Your task to perform on an android device: Check the weather Image 0: 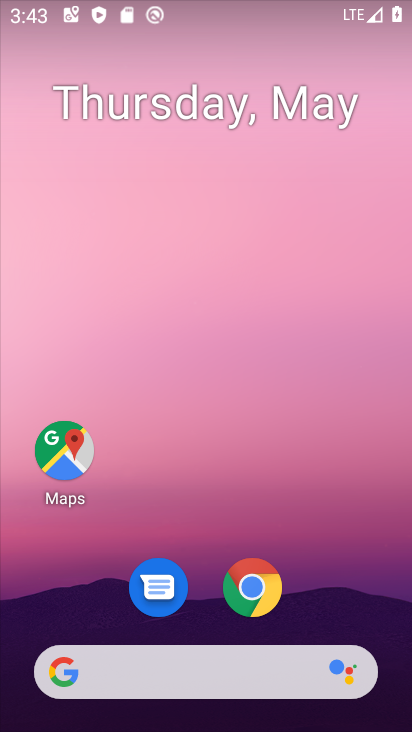
Step 0: drag from (219, 647) to (221, 197)
Your task to perform on an android device: Check the weather Image 1: 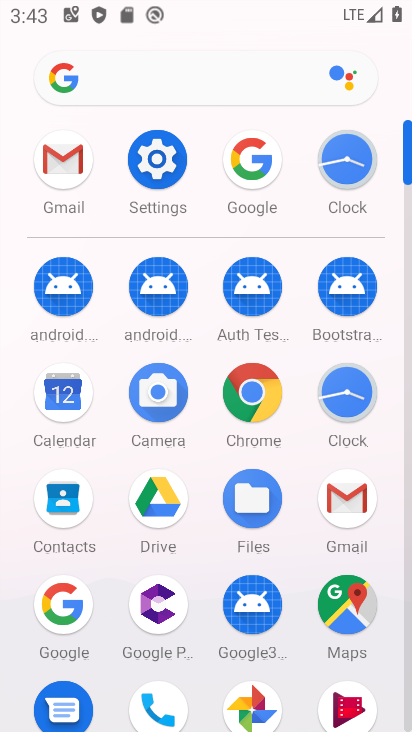
Step 1: drag from (150, 556) to (170, 246)
Your task to perform on an android device: Check the weather Image 2: 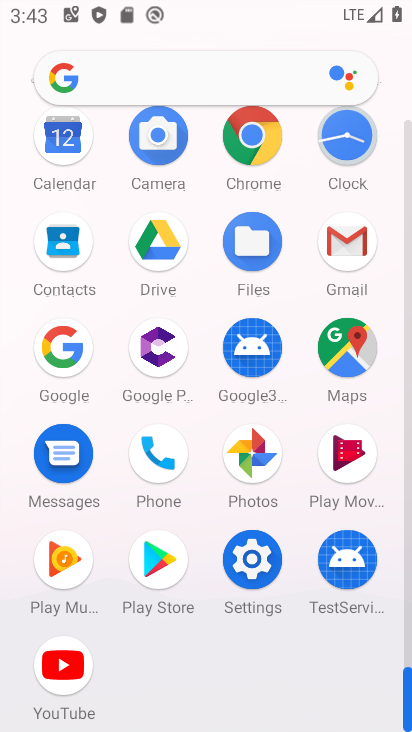
Step 2: click (65, 367)
Your task to perform on an android device: Check the weather Image 3: 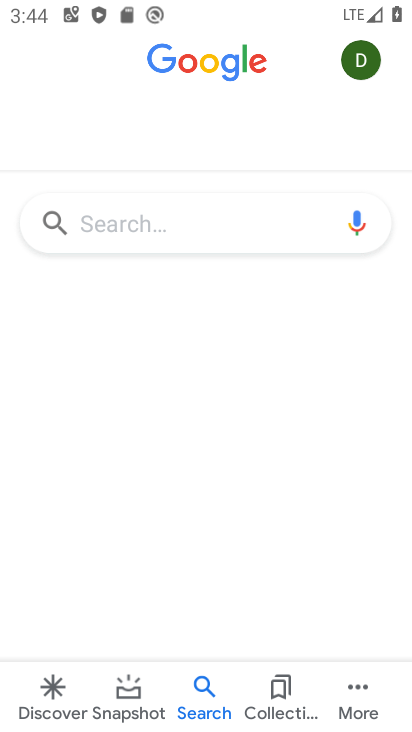
Step 3: click (162, 239)
Your task to perform on an android device: Check the weather Image 4: 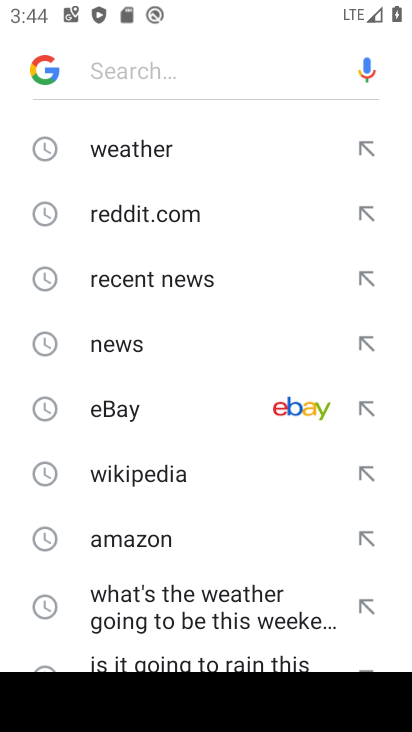
Step 4: click (151, 150)
Your task to perform on an android device: Check the weather Image 5: 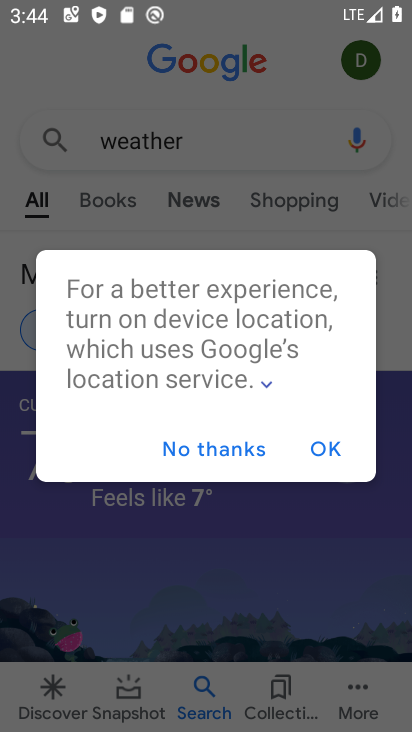
Step 5: click (341, 444)
Your task to perform on an android device: Check the weather Image 6: 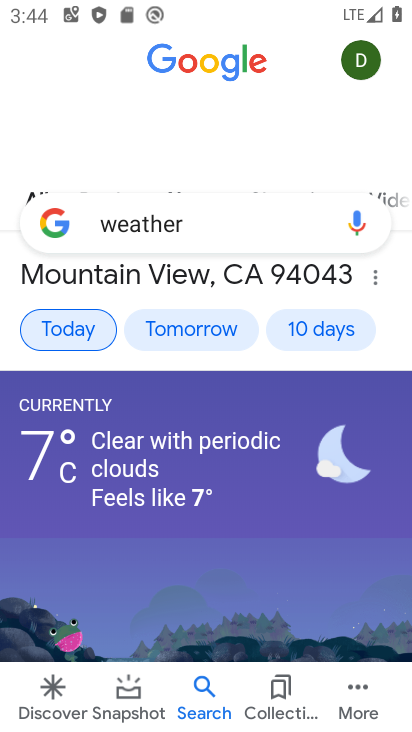
Step 6: task complete